Your task to perform on an android device: open app "ColorNote Notepad Notes" (install if not already installed) Image 0: 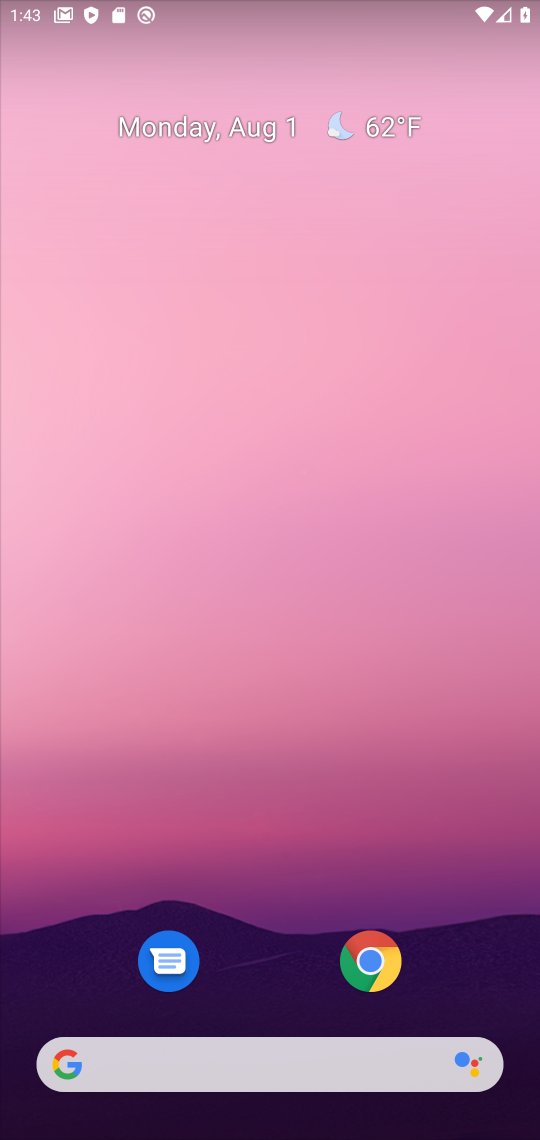
Step 0: drag from (262, 891) to (283, 125)
Your task to perform on an android device: open app "ColorNote Notepad Notes" (install if not already installed) Image 1: 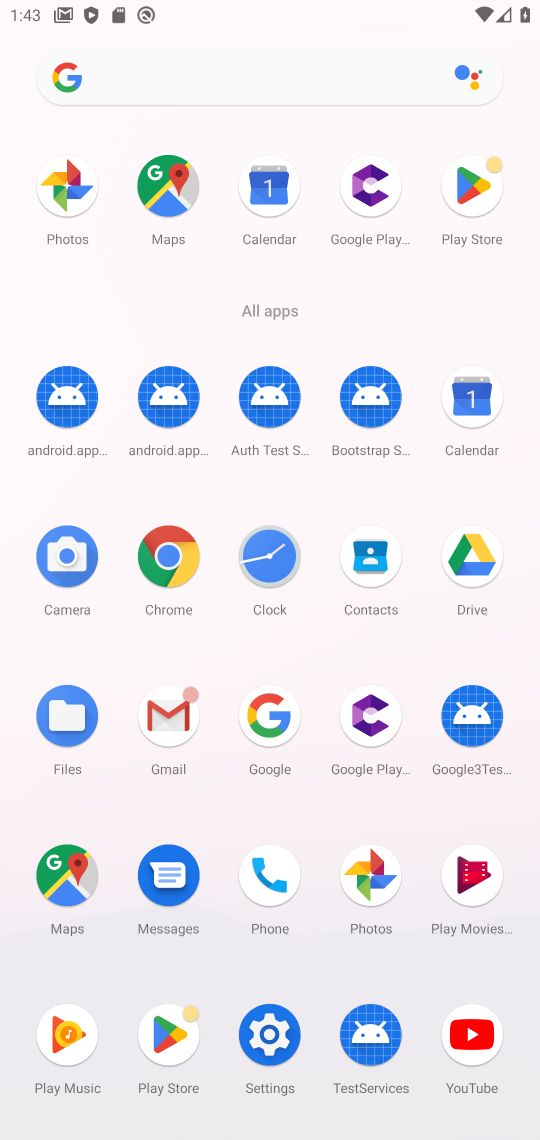
Step 1: click (482, 172)
Your task to perform on an android device: open app "ColorNote Notepad Notes" (install if not already installed) Image 2: 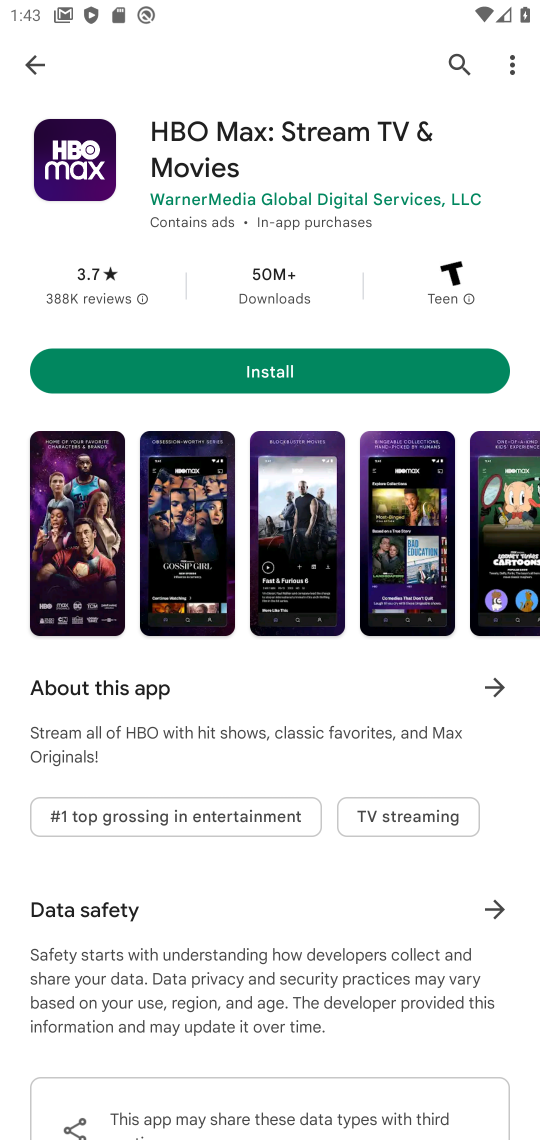
Step 2: click (450, 61)
Your task to perform on an android device: open app "ColorNote Notepad Notes" (install if not already installed) Image 3: 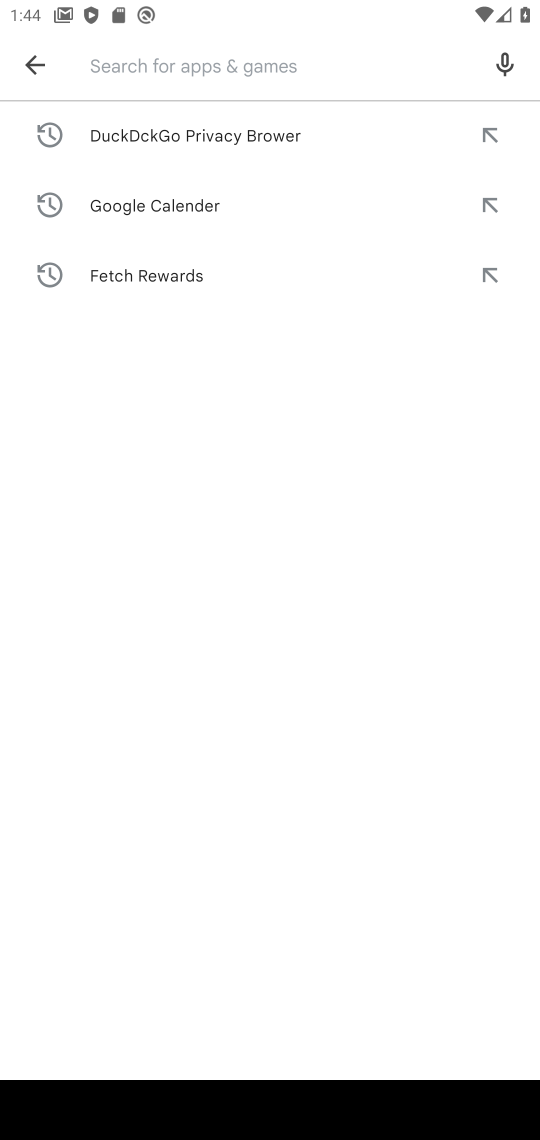
Step 3: type "ColorNote Notepad Notes "
Your task to perform on an android device: open app "ColorNote Notepad Notes" (install if not already installed) Image 4: 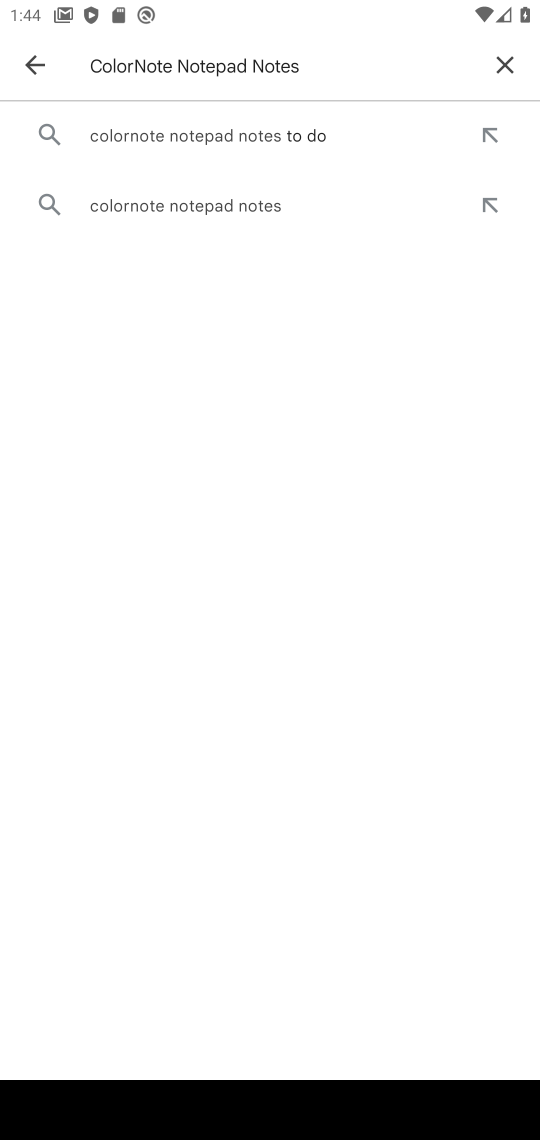
Step 4: press enter
Your task to perform on an android device: open app "ColorNote Notepad Notes" (install if not already installed) Image 5: 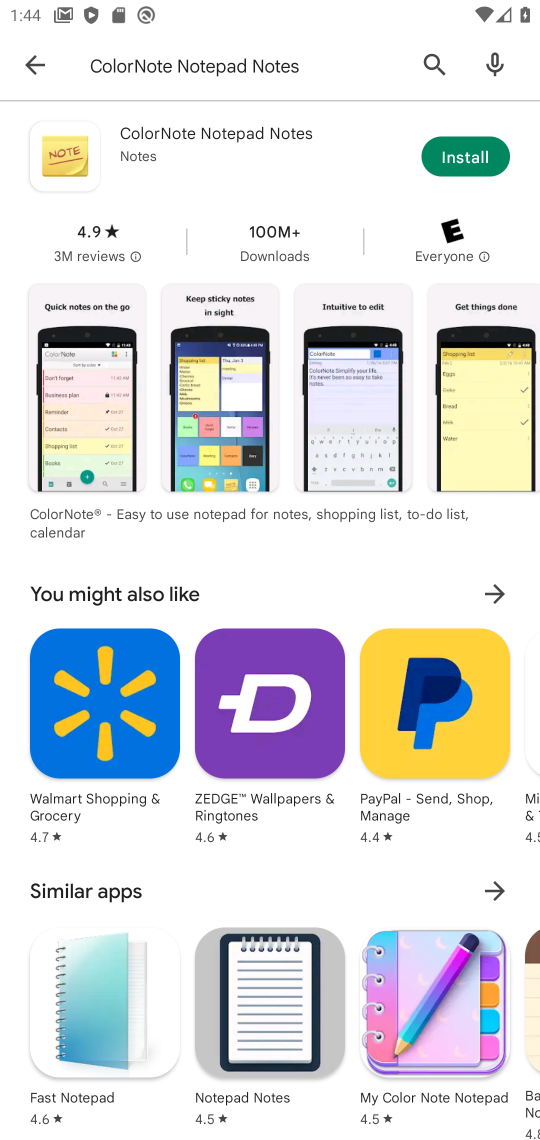
Step 5: click (462, 139)
Your task to perform on an android device: open app "ColorNote Notepad Notes" (install if not already installed) Image 6: 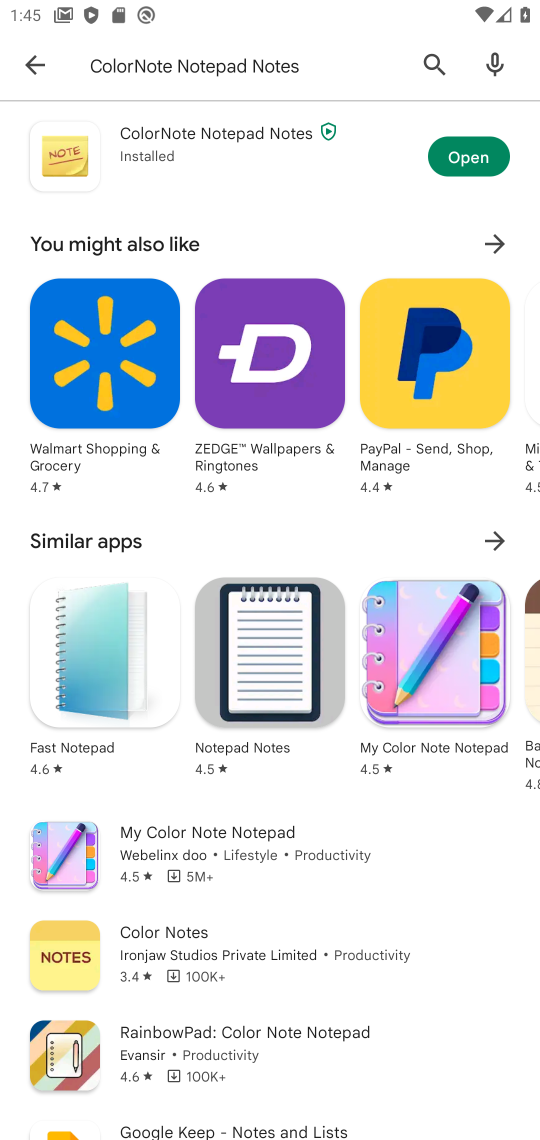
Step 6: click (473, 154)
Your task to perform on an android device: open app "ColorNote Notepad Notes" (install if not already installed) Image 7: 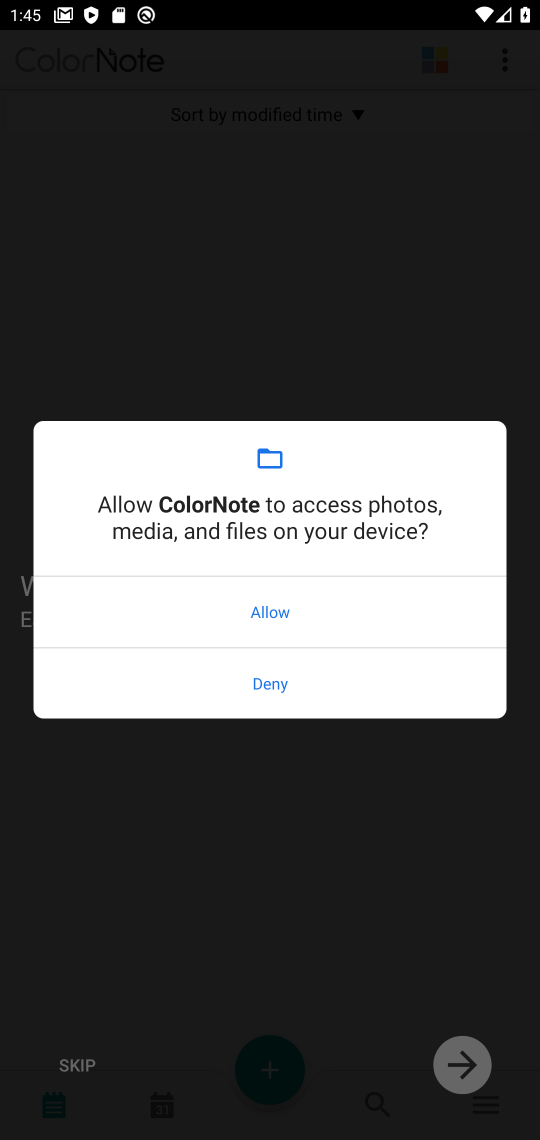
Step 7: press home button
Your task to perform on an android device: open app "ColorNote Notepad Notes" (install if not already installed) Image 8: 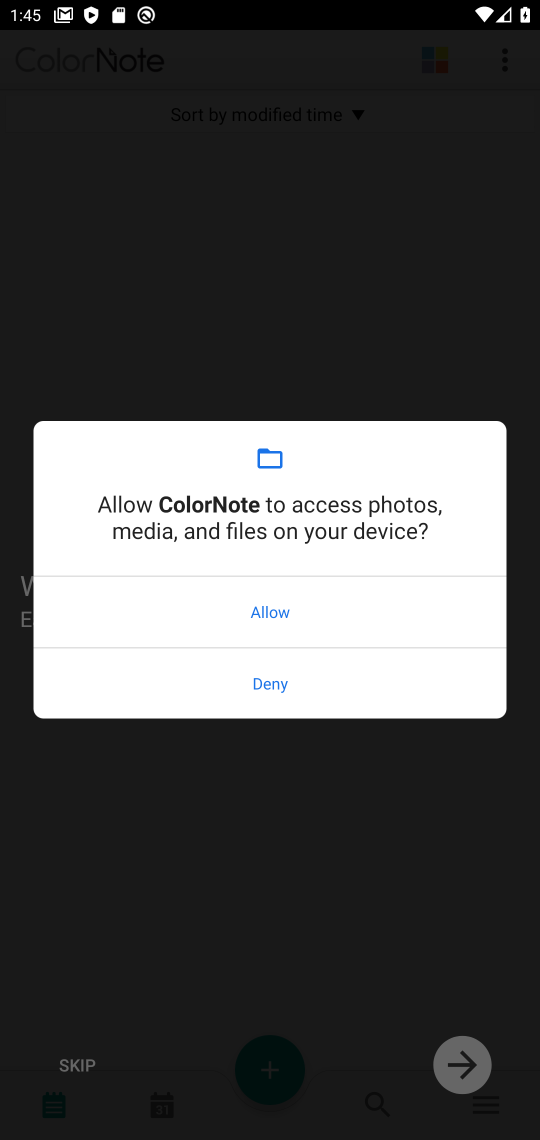
Step 8: press home button
Your task to perform on an android device: open app "ColorNote Notepad Notes" (install if not already installed) Image 9: 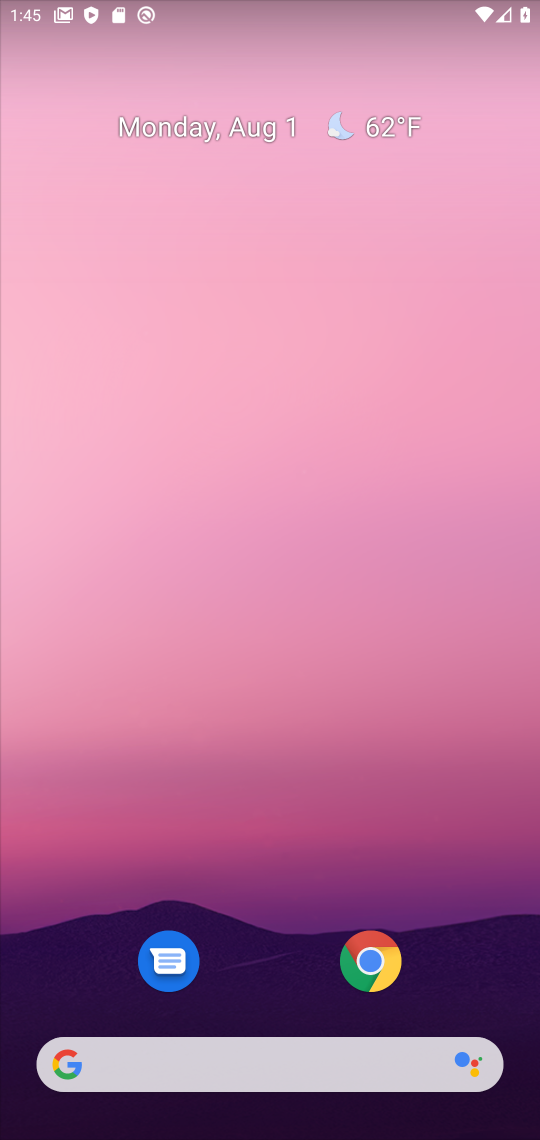
Step 9: drag from (369, 774) to (401, 3)
Your task to perform on an android device: open app "ColorNote Notepad Notes" (install if not already installed) Image 10: 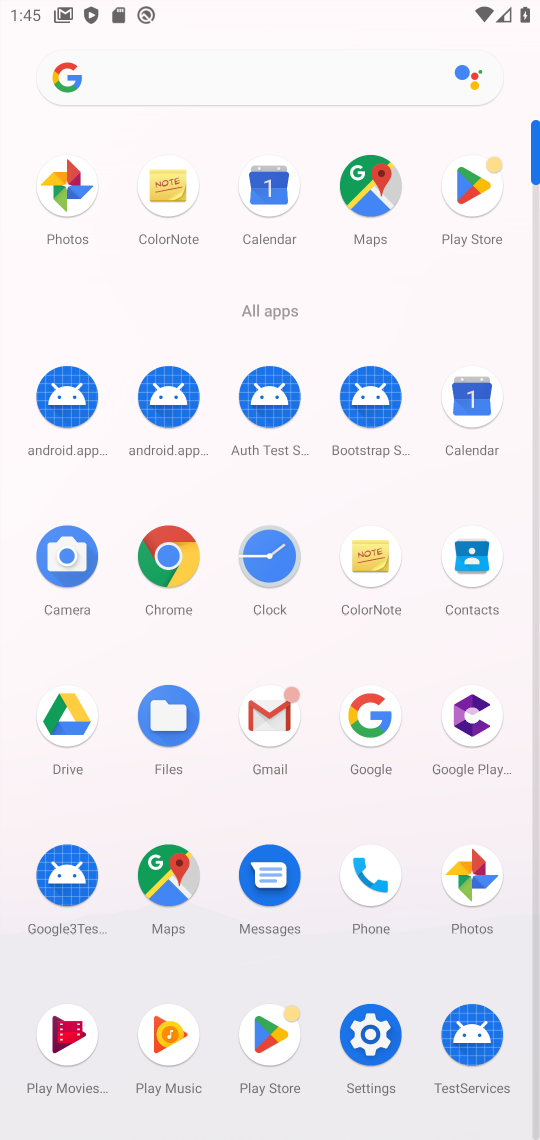
Step 10: click (474, 181)
Your task to perform on an android device: open app "ColorNote Notepad Notes" (install if not already installed) Image 11: 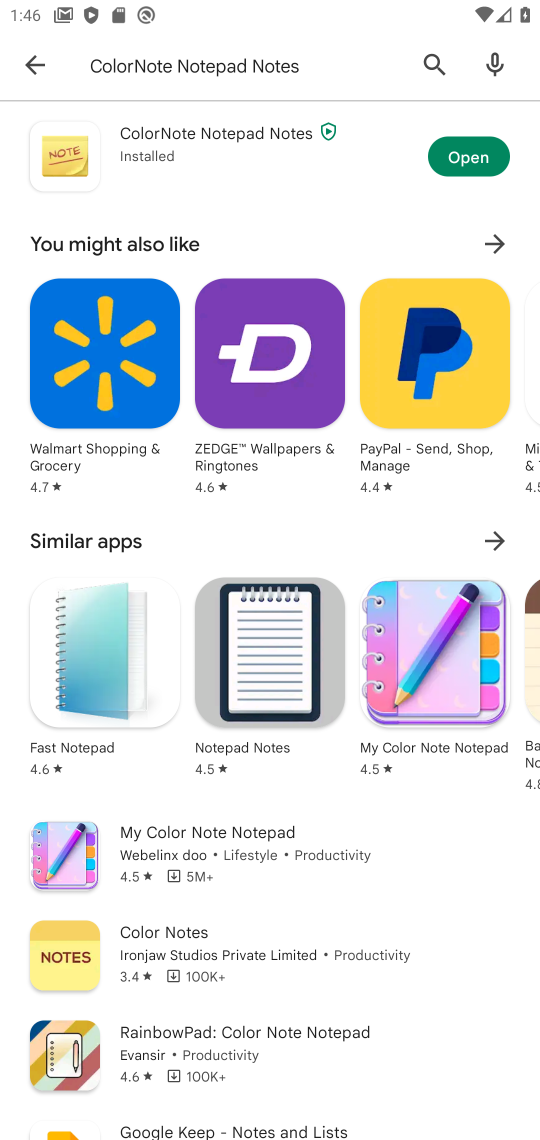
Step 11: click (474, 160)
Your task to perform on an android device: open app "ColorNote Notepad Notes" (install if not already installed) Image 12: 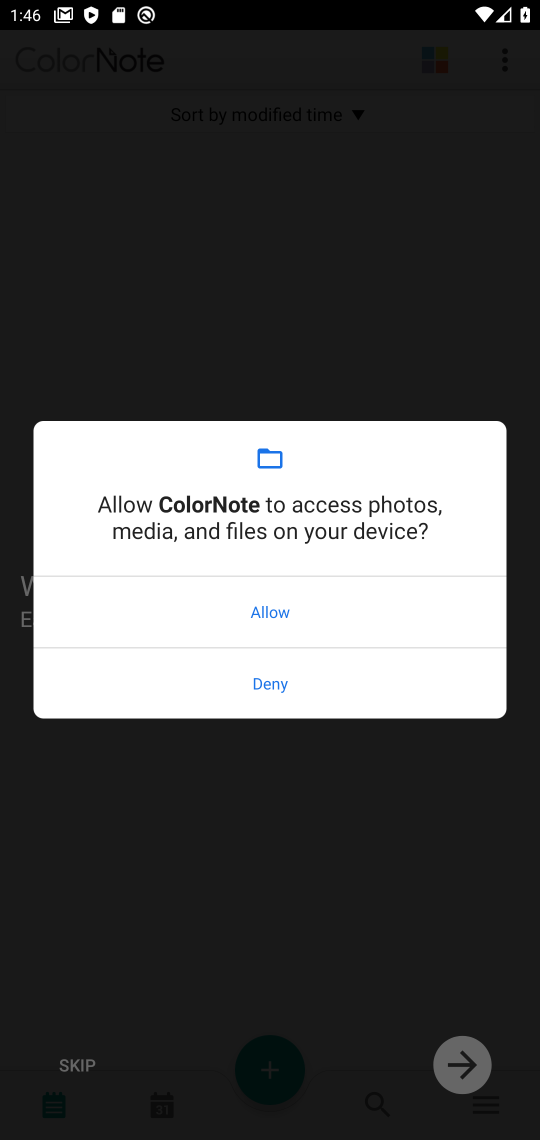
Step 12: click (394, 591)
Your task to perform on an android device: open app "ColorNote Notepad Notes" (install if not already installed) Image 13: 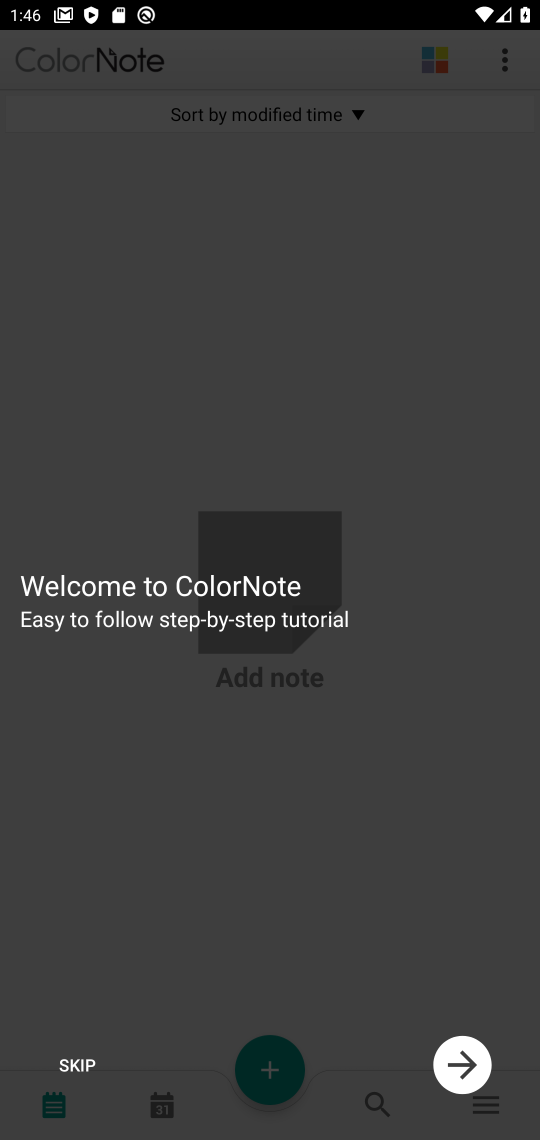
Step 13: task complete